Your task to perform on an android device: open app "Instagram" Image 0: 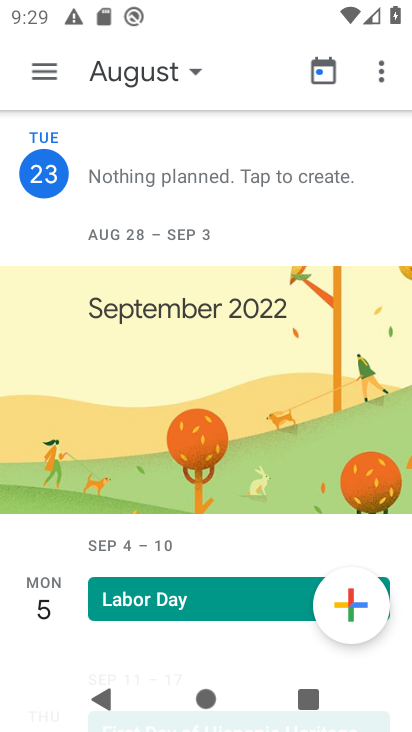
Step 0: press home button
Your task to perform on an android device: open app "Instagram" Image 1: 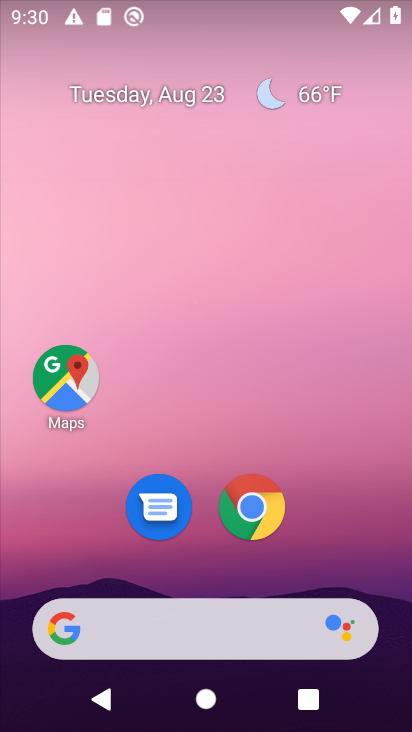
Step 1: drag from (378, 575) to (363, 55)
Your task to perform on an android device: open app "Instagram" Image 2: 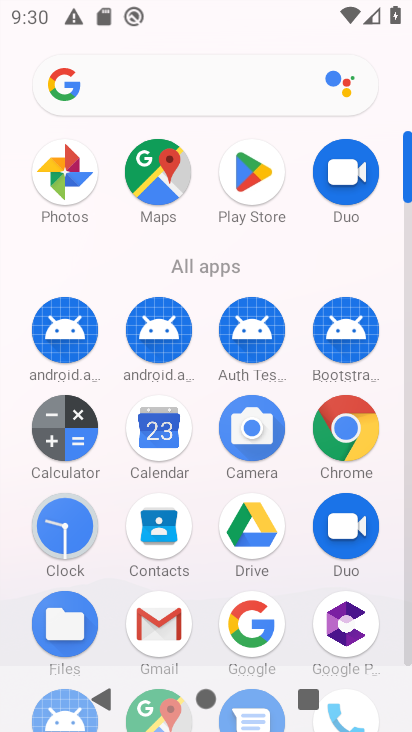
Step 2: click (404, 653)
Your task to perform on an android device: open app "Instagram" Image 3: 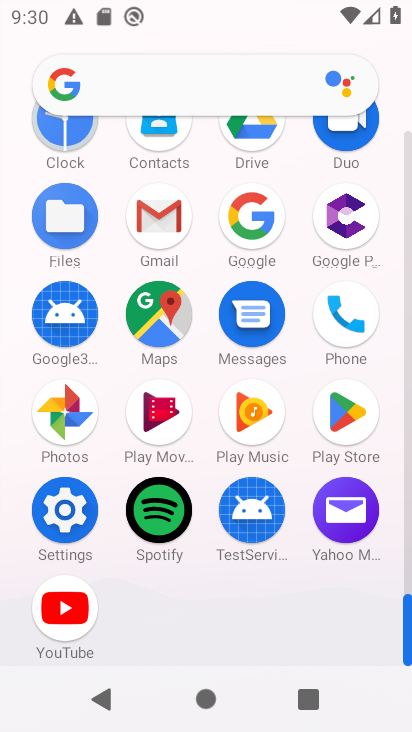
Step 3: click (348, 413)
Your task to perform on an android device: open app "Instagram" Image 4: 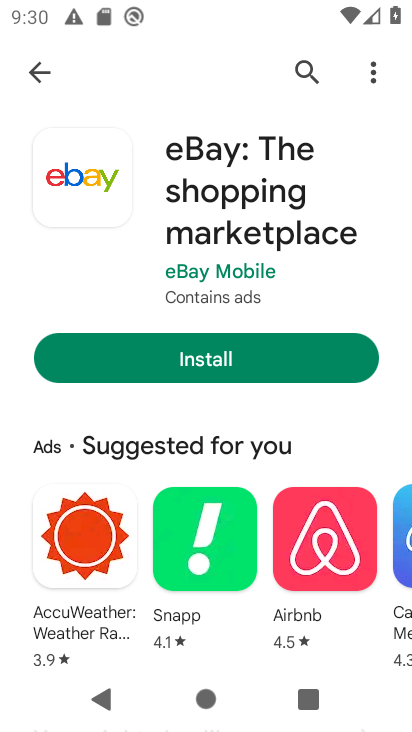
Step 4: click (306, 73)
Your task to perform on an android device: open app "Instagram" Image 5: 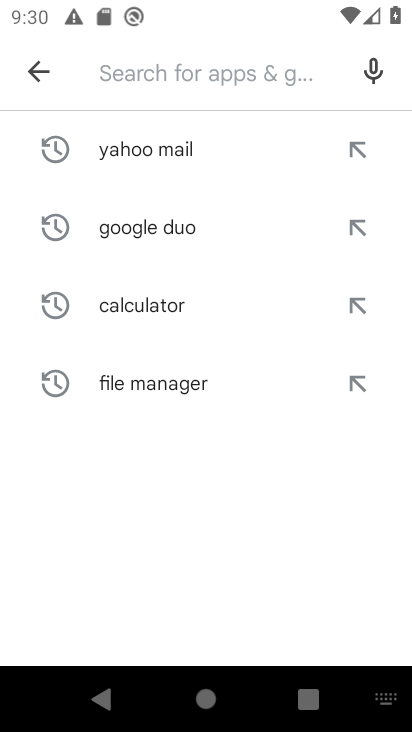
Step 5: type "Instagram"
Your task to perform on an android device: open app "Instagram" Image 6: 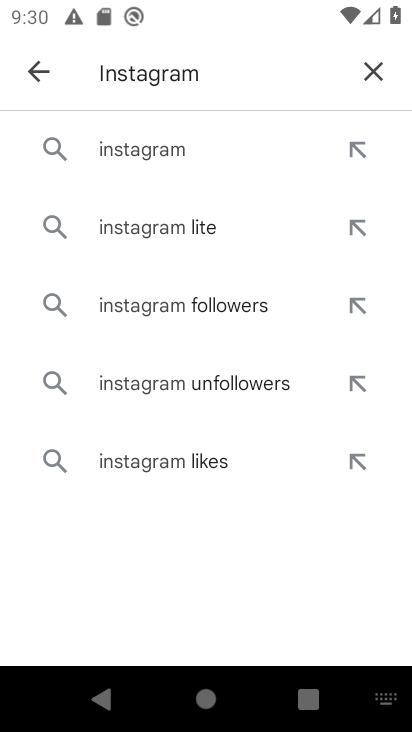
Step 6: click (135, 146)
Your task to perform on an android device: open app "Instagram" Image 7: 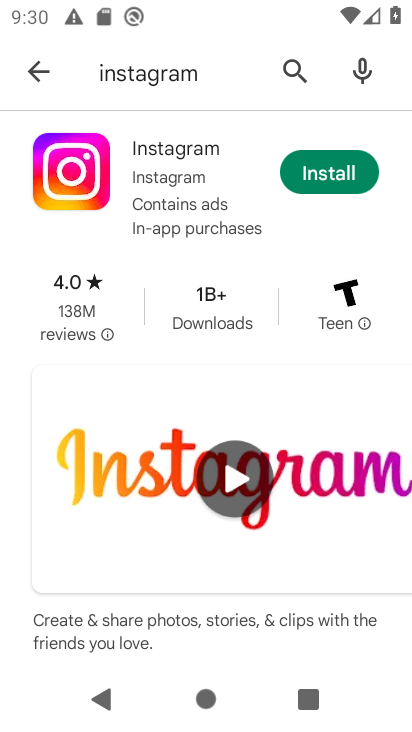
Step 7: task complete